Your task to perform on an android device: Go to Maps Image 0: 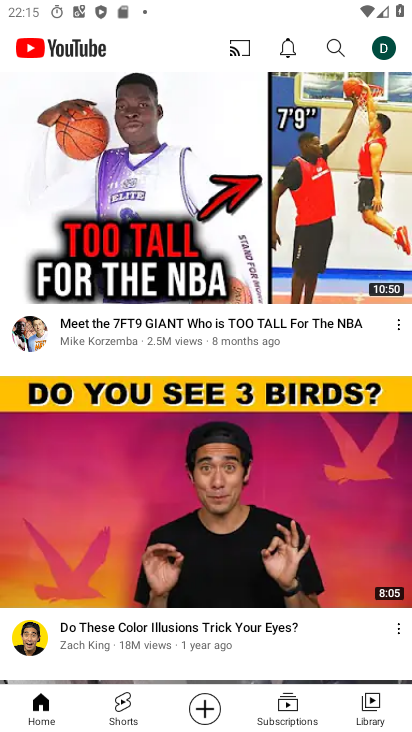
Step 0: press home button
Your task to perform on an android device: Go to Maps Image 1: 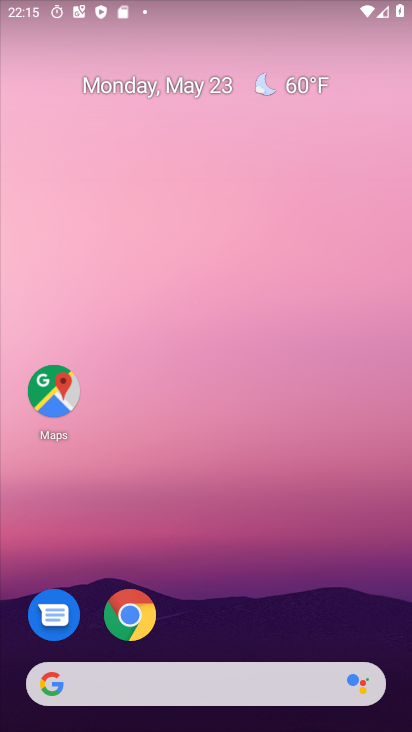
Step 1: click (59, 395)
Your task to perform on an android device: Go to Maps Image 2: 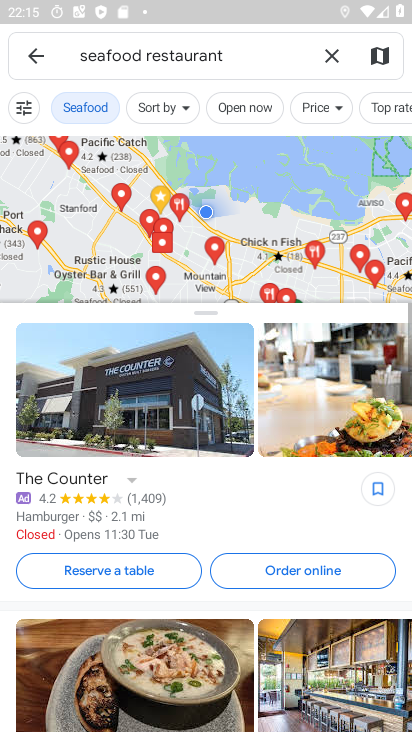
Step 2: task complete